Your task to perform on an android device: Show me productivity apps on the Play Store Image 0: 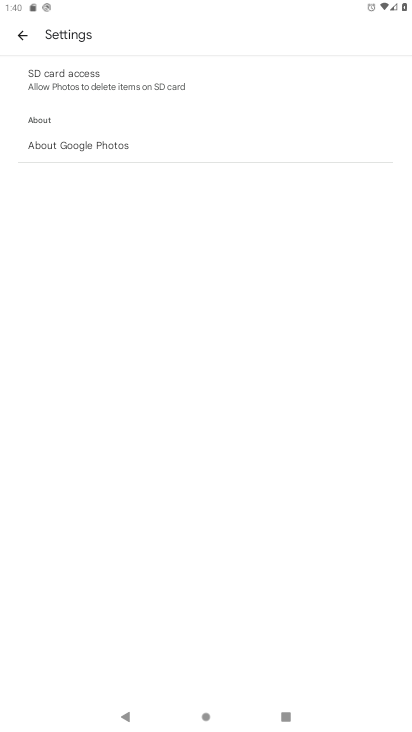
Step 0: press home button
Your task to perform on an android device: Show me productivity apps on the Play Store Image 1: 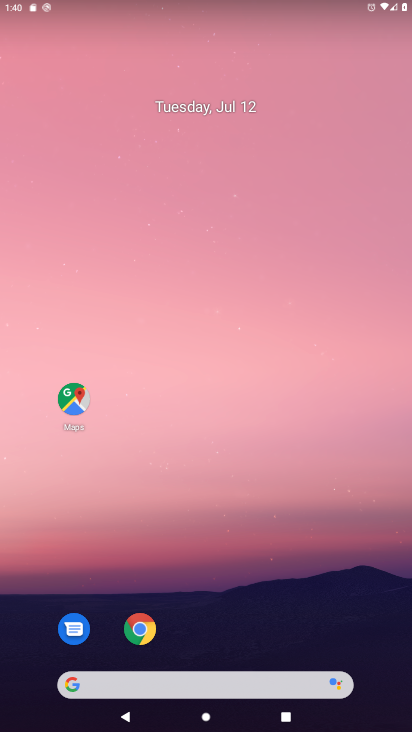
Step 1: drag from (303, 710) to (276, 207)
Your task to perform on an android device: Show me productivity apps on the Play Store Image 2: 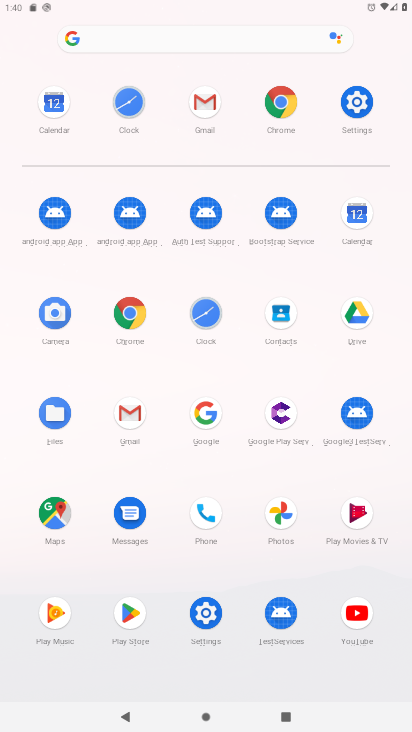
Step 2: click (140, 617)
Your task to perform on an android device: Show me productivity apps on the Play Store Image 3: 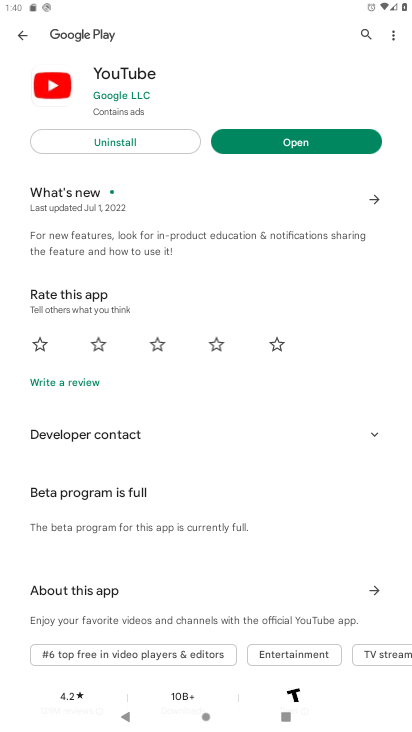
Step 3: press back button
Your task to perform on an android device: Show me productivity apps on the Play Store Image 4: 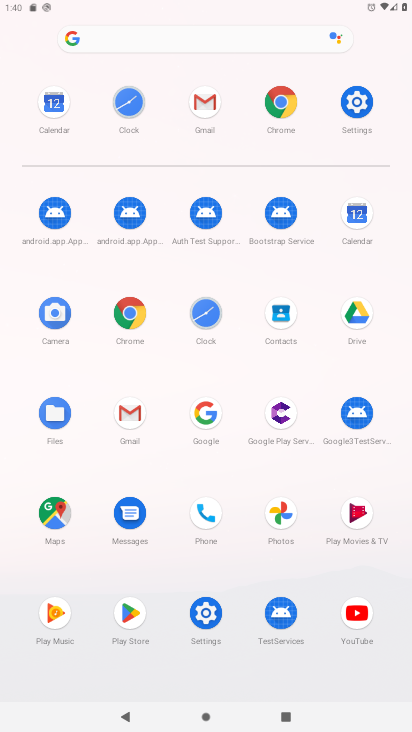
Step 4: click (123, 619)
Your task to perform on an android device: Show me productivity apps on the Play Store Image 5: 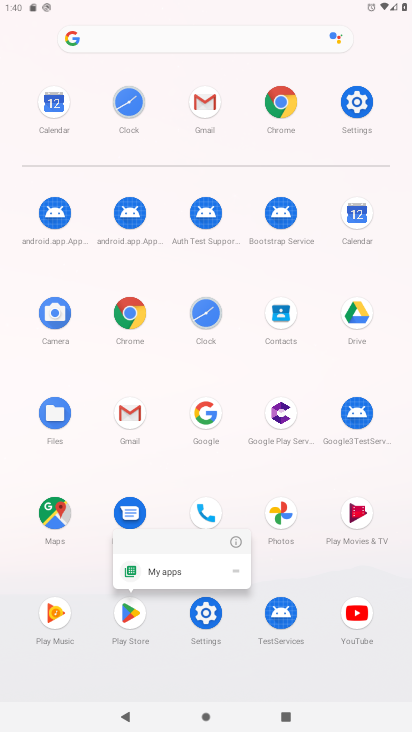
Step 5: click (137, 621)
Your task to perform on an android device: Show me productivity apps on the Play Store Image 6: 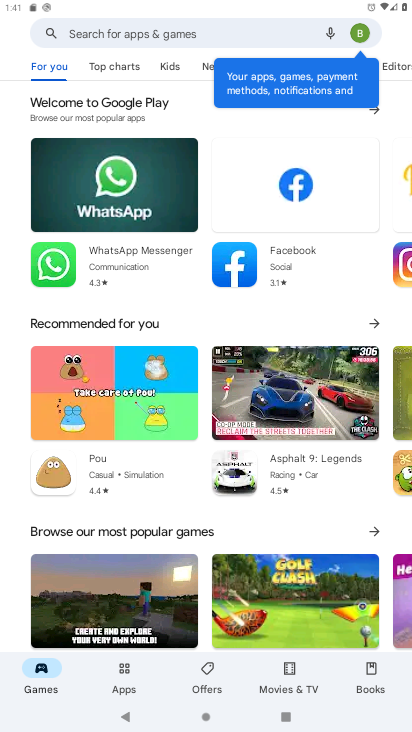
Step 6: drag from (137, 587) to (254, 50)
Your task to perform on an android device: Show me productivity apps on the Play Store Image 7: 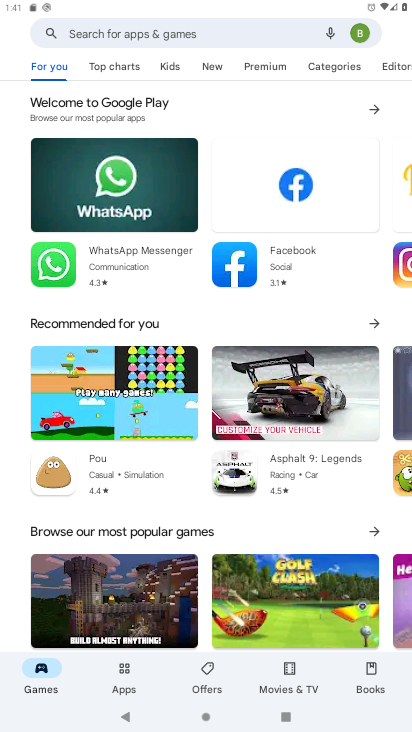
Step 7: drag from (190, 584) to (280, 199)
Your task to perform on an android device: Show me productivity apps on the Play Store Image 8: 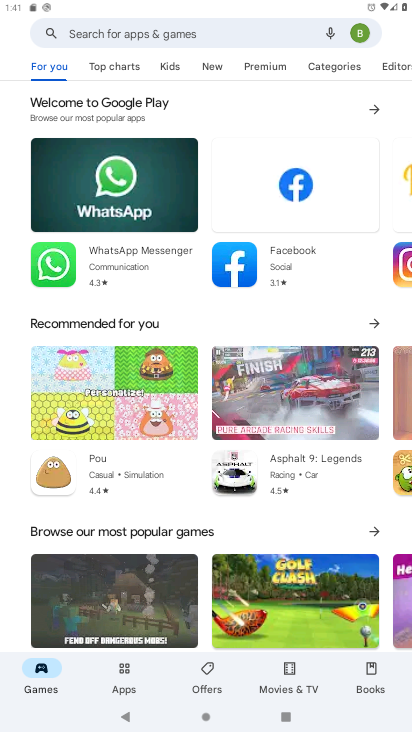
Step 8: click (119, 683)
Your task to perform on an android device: Show me productivity apps on the Play Store Image 9: 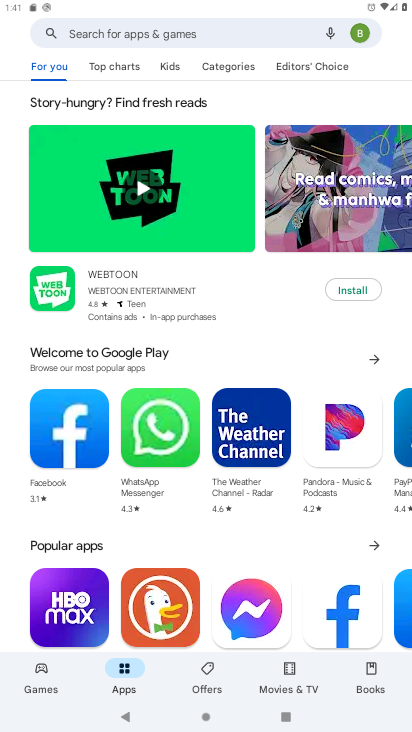
Step 9: drag from (253, 565) to (289, 38)
Your task to perform on an android device: Show me productivity apps on the Play Store Image 10: 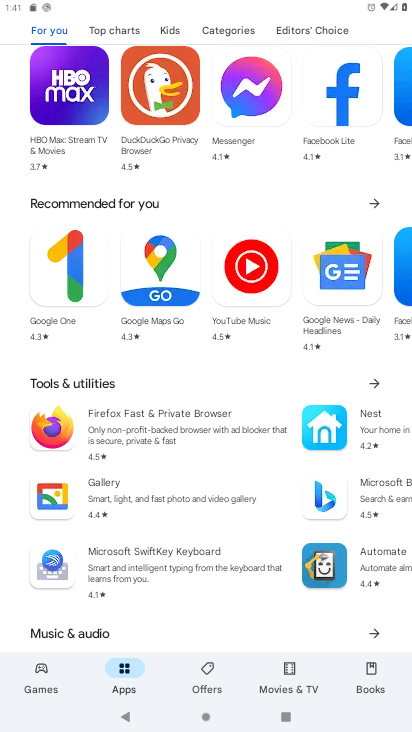
Step 10: drag from (211, 595) to (261, 142)
Your task to perform on an android device: Show me productivity apps on the Play Store Image 11: 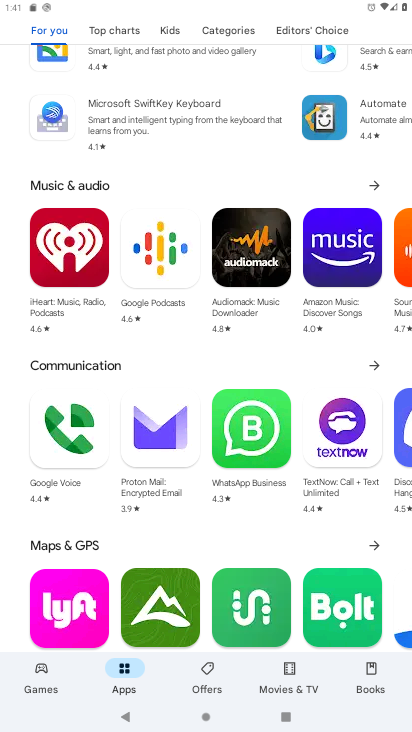
Step 11: drag from (147, 544) to (234, 46)
Your task to perform on an android device: Show me productivity apps on the Play Store Image 12: 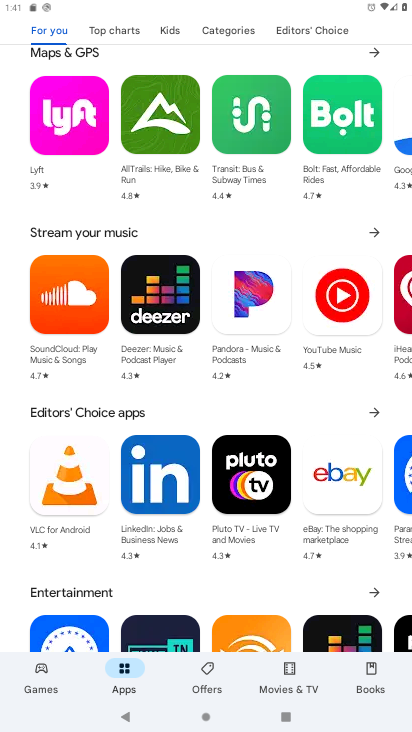
Step 12: drag from (160, 560) to (229, 184)
Your task to perform on an android device: Show me productivity apps on the Play Store Image 13: 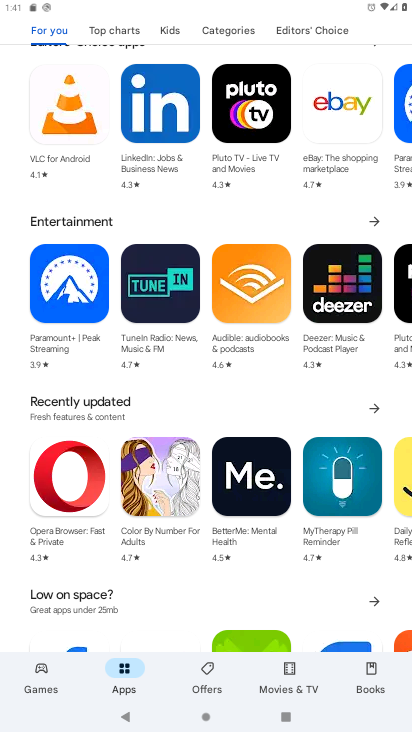
Step 13: drag from (154, 583) to (222, 236)
Your task to perform on an android device: Show me productivity apps on the Play Store Image 14: 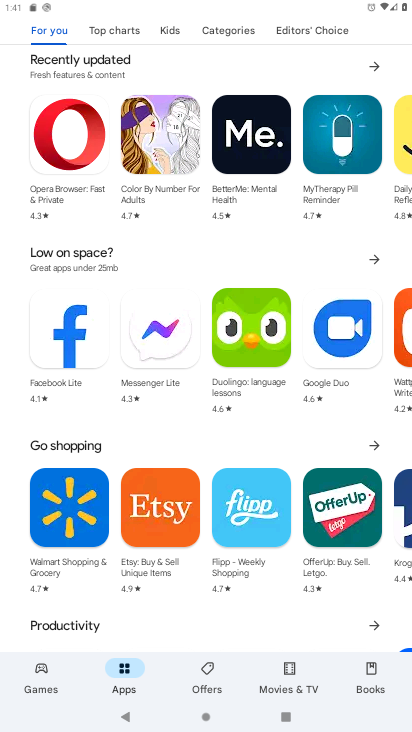
Step 14: drag from (178, 619) to (217, 467)
Your task to perform on an android device: Show me productivity apps on the Play Store Image 15: 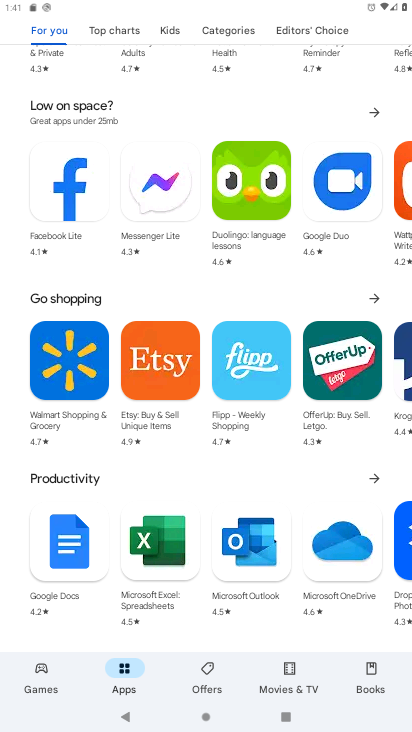
Step 15: click (373, 477)
Your task to perform on an android device: Show me productivity apps on the Play Store Image 16: 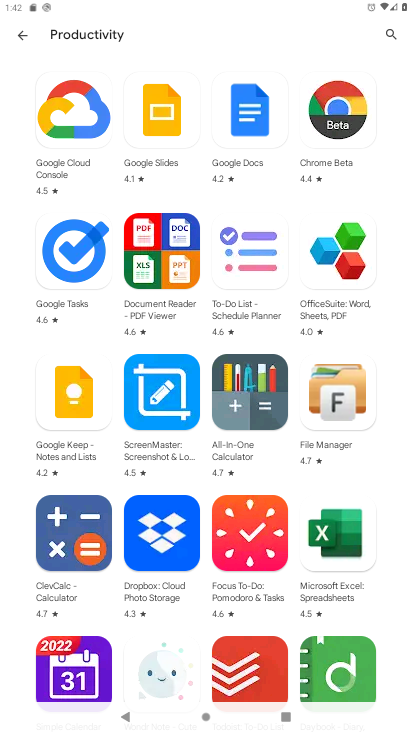
Step 16: task complete